Your task to perform on an android device: toggle notification dots Image 0: 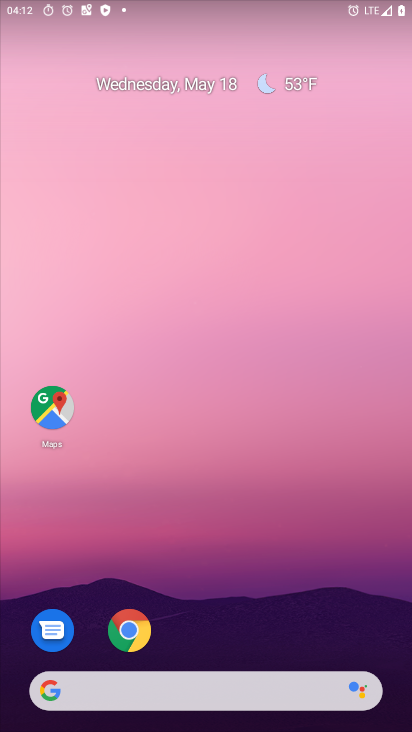
Step 0: drag from (208, 723) to (210, 194)
Your task to perform on an android device: toggle notification dots Image 1: 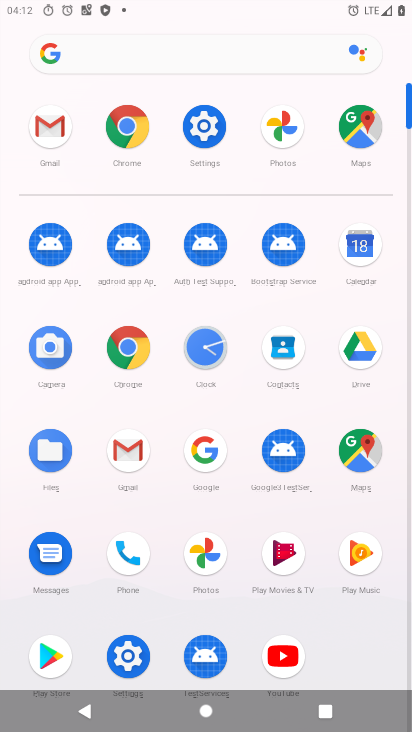
Step 1: click (215, 115)
Your task to perform on an android device: toggle notification dots Image 2: 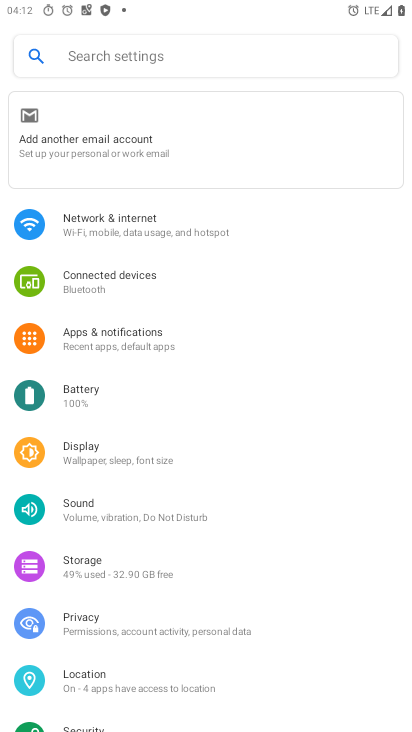
Step 2: click (133, 320)
Your task to perform on an android device: toggle notification dots Image 3: 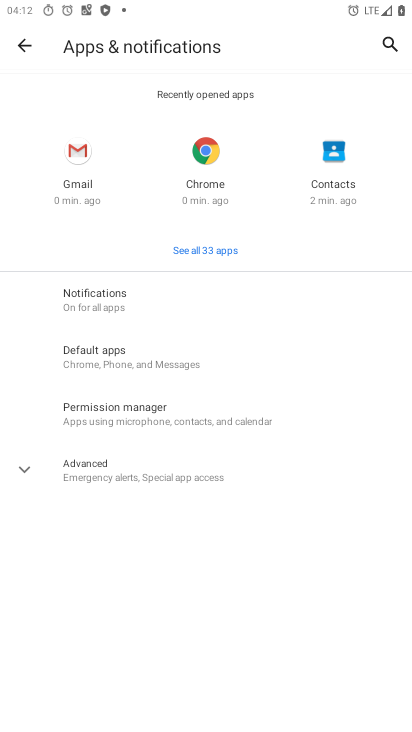
Step 3: click (85, 292)
Your task to perform on an android device: toggle notification dots Image 4: 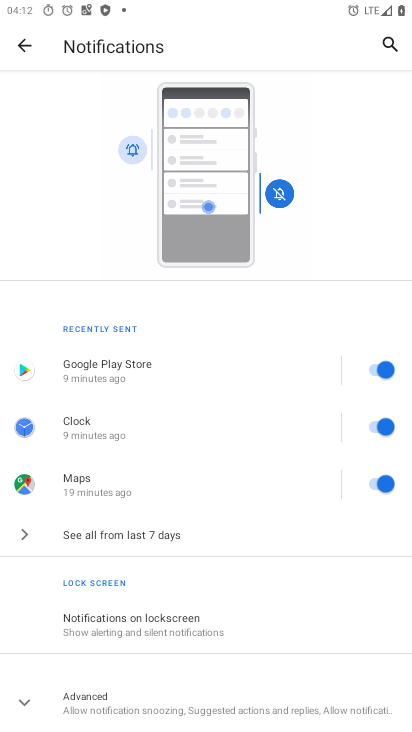
Step 4: drag from (185, 655) to (190, 310)
Your task to perform on an android device: toggle notification dots Image 5: 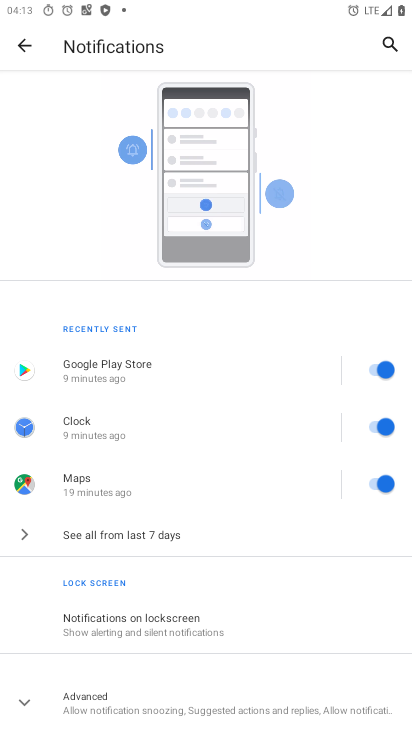
Step 5: click (97, 694)
Your task to perform on an android device: toggle notification dots Image 6: 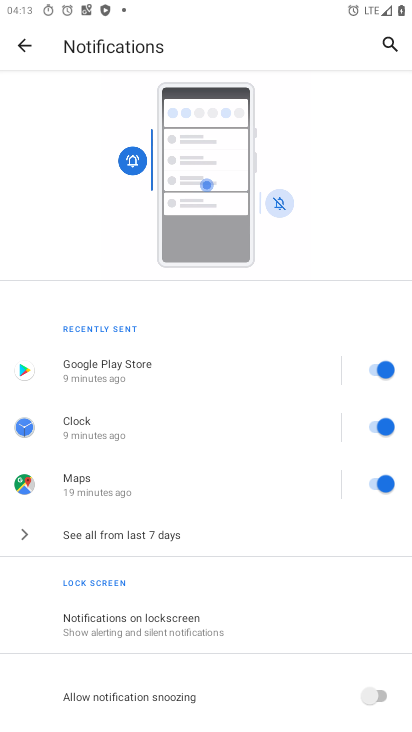
Step 6: drag from (155, 667) to (159, 330)
Your task to perform on an android device: toggle notification dots Image 7: 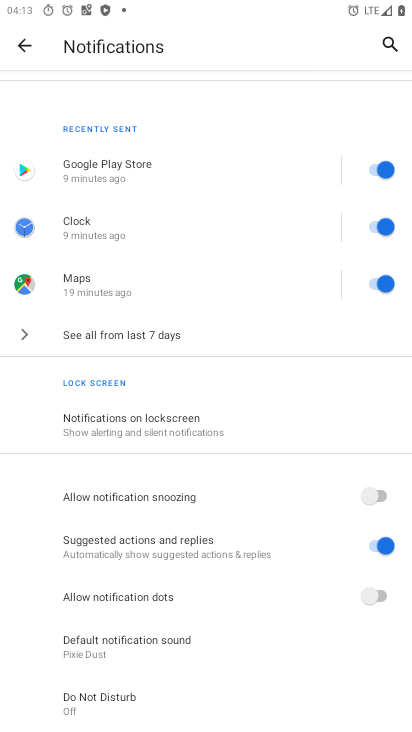
Step 7: click (379, 595)
Your task to perform on an android device: toggle notification dots Image 8: 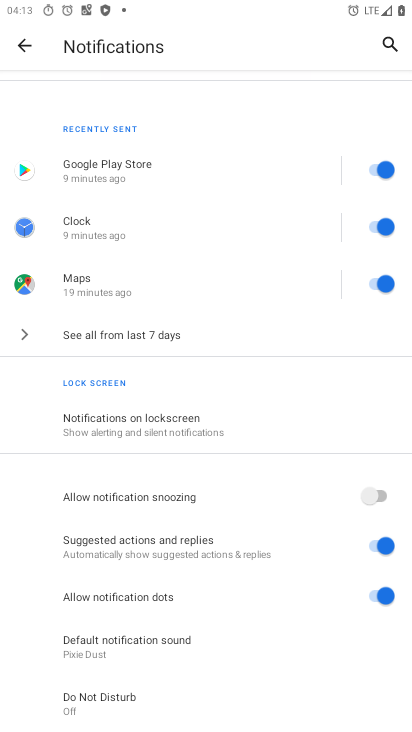
Step 8: task complete